Your task to perform on an android device: Go to privacy settings Image 0: 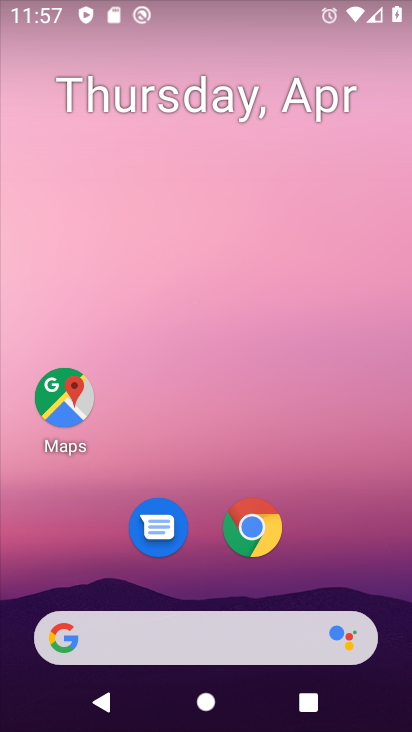
Step 0: click (209, 582)
Your task to perform on an android device: Go to privacy settings Image 1: 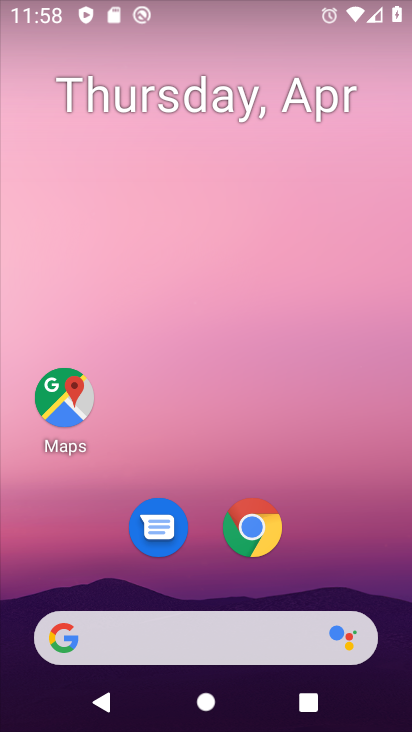
Step 1: click (246, 530)
Your task to perform on an android device: Go to privacy settings Image 2: 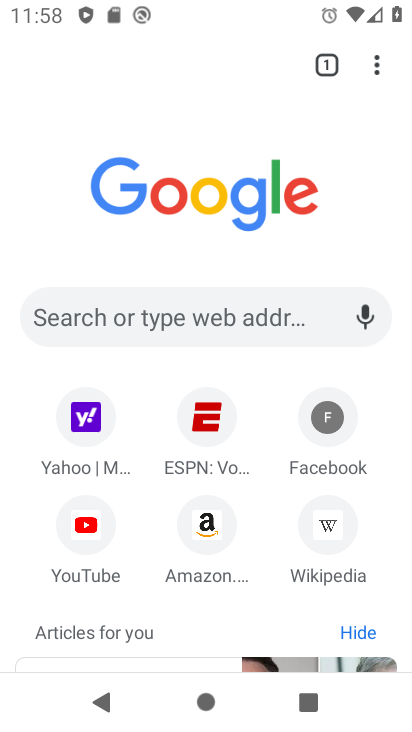
Step 2: drag from (373, 70) to (166, 585)
Your task to perform on an android device: Go to privacy settings Image 3: 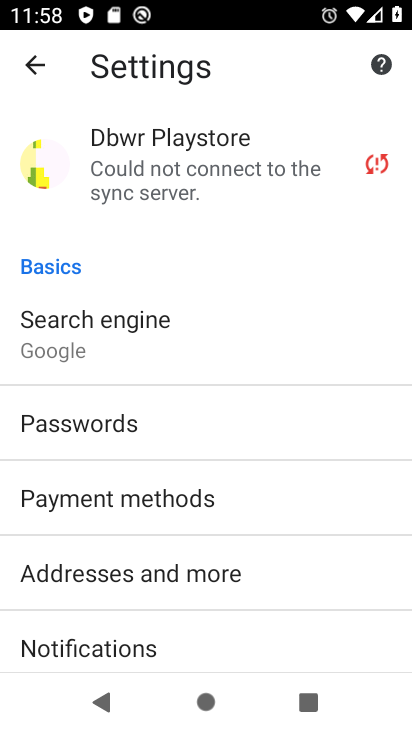
Step 3: drag from (155, 604) to (218, 322)
Your task to perform on an android device: Go to privacy settings Image 4: 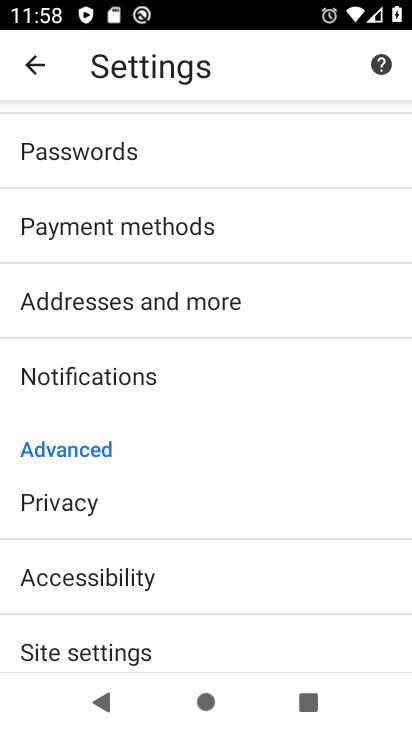
Step 4: click (94, 489)
Your task to perform on an android device: Go to privacy settings Image 5: 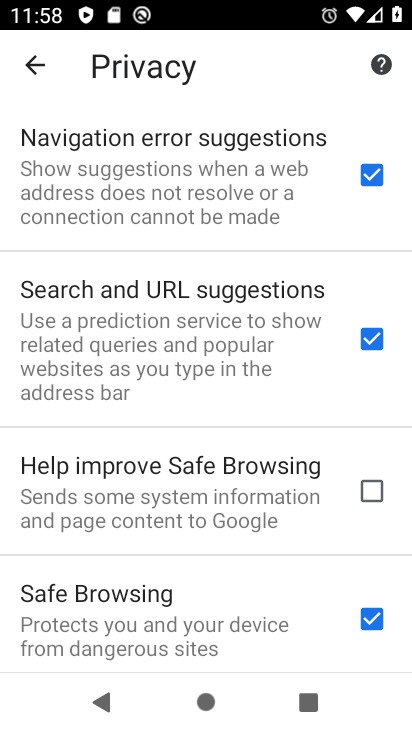
Step 5: task complete